Your task to perform on an android device: What's the weather today? Image 0: 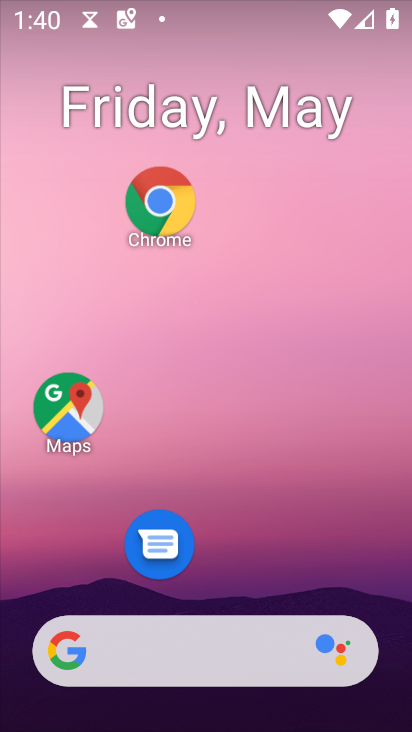
Step 0: drag from (280, 549) to (237, 168)
Your task to perform on an android device: What's the weather today? Image 1: 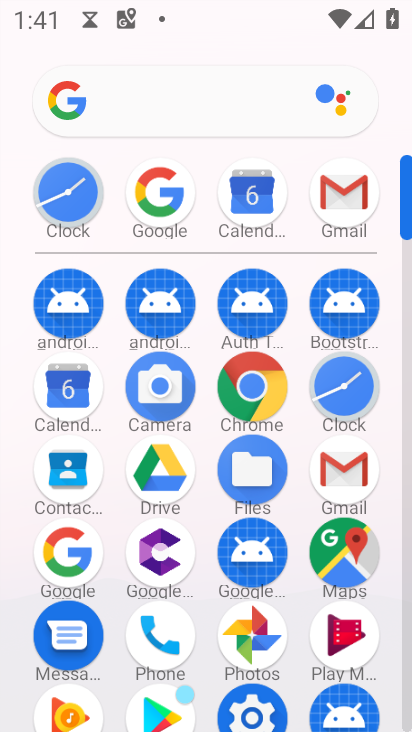
Step 1: click (165, 192)
Your task to perform on an android device: What's the weather today? Image 2: 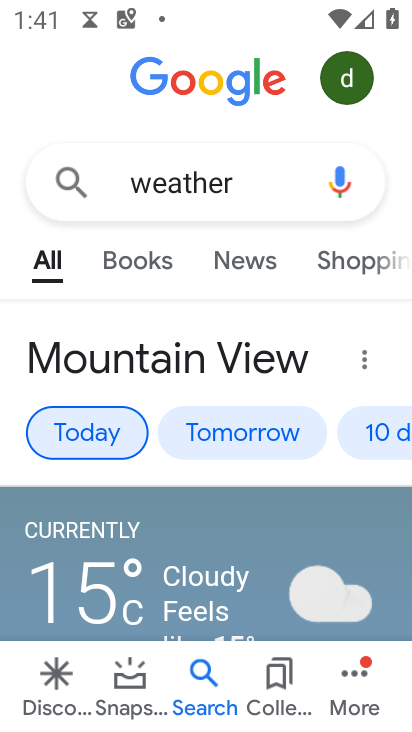
Step 2: task complete